Your task to perform on an android device: Go to display settings Image 0: 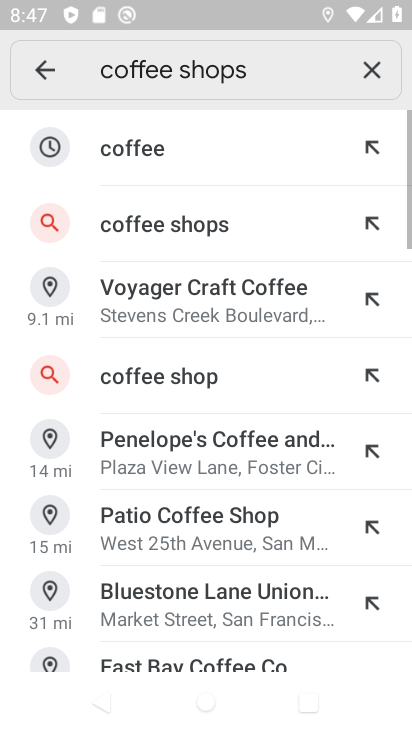
Step 0: press home button
Your task to perform on an android device: Go to display settings Image 1: 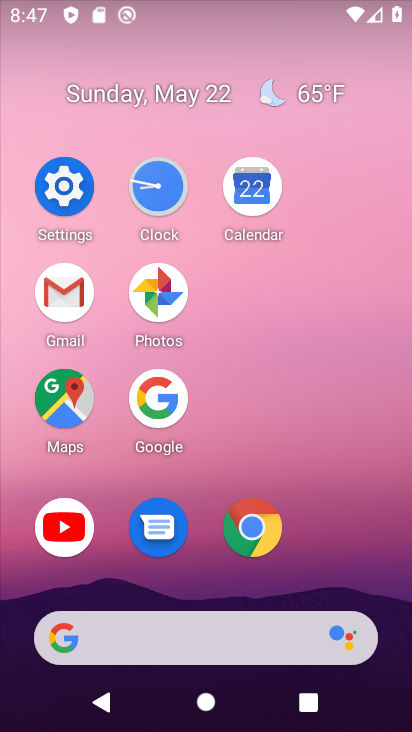
Step 1: click (66, 190)
Your task to perform on an android device: Go to display settings Image 2: 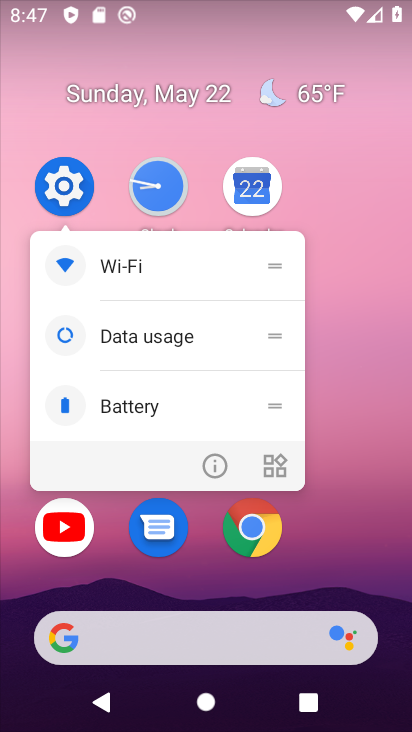
Step 2: click (60, 188)
Your task to perform on an android device: Go to display settings Image 3: 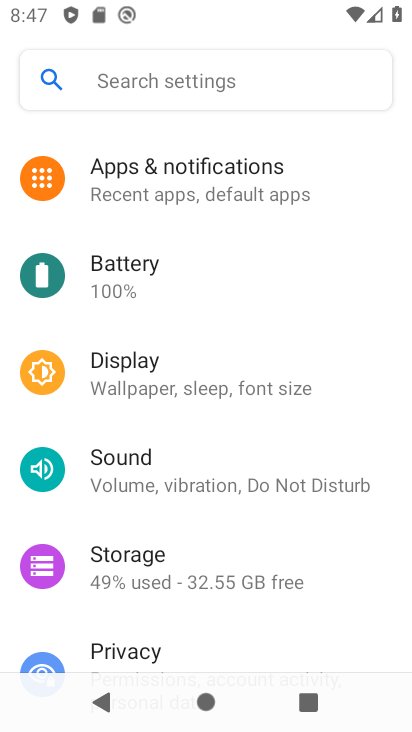
Step 3: click (213, 363)
Your task to perform on an android device: Go to display settings Image 4: 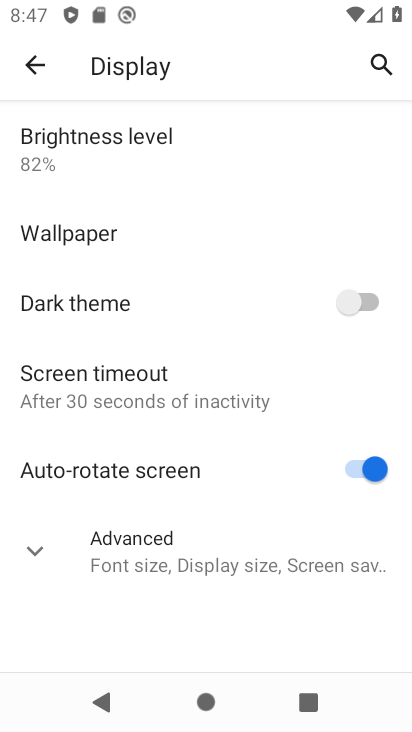
Step 4: task complete